Your task to perform on an android device: find photos in the google photos app Image 0: 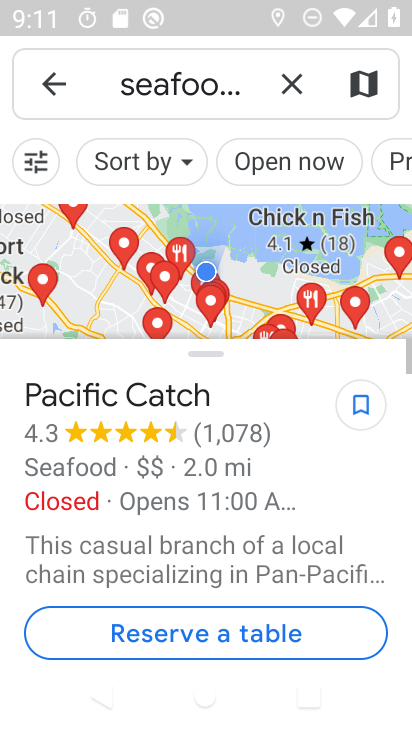
Step 0: press back button
Your task to perform on an android device: find photos in the google photos app Image 1: 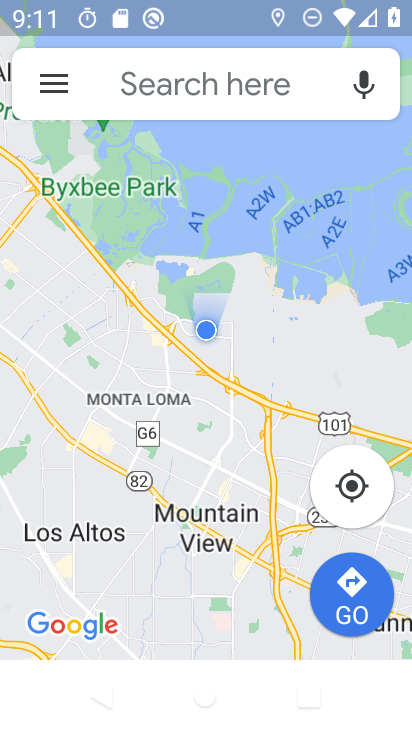
Step 1: press back button
Your task to perform on an android device: find photos in the google photos app Image 2: 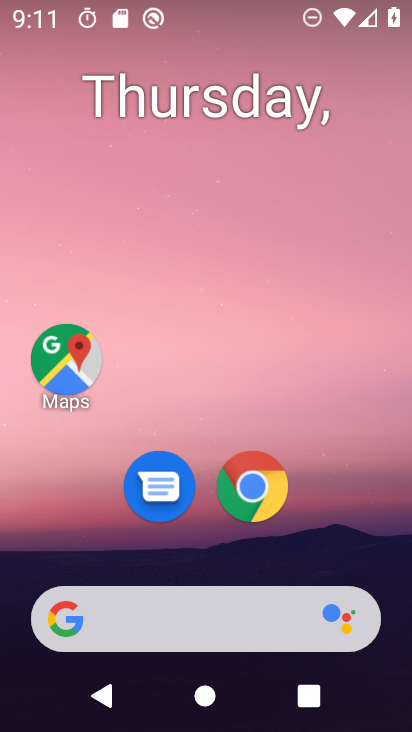
Step 2: drag from (203, 560) to (273, 51)
Your task to perform on an android device: find photos in the google photos app Image 3: 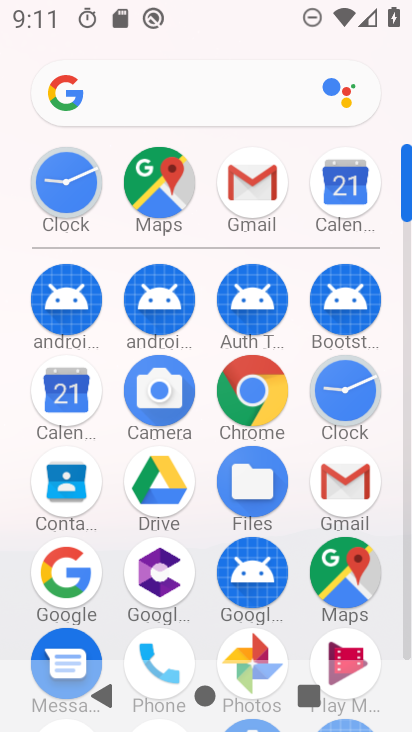
Step 3: click (265, 640)
Your task to perform on an android device: find photos in the google photos app Image 4: 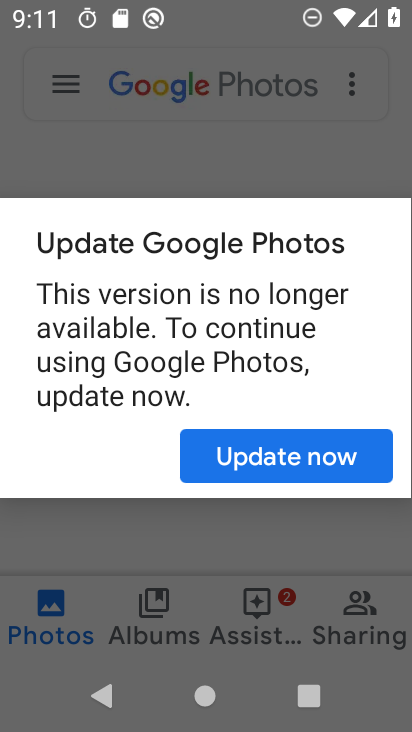
Step 4: click (245, 462)
Your task to perform on an android device: find photos in the google photos app Image 5: 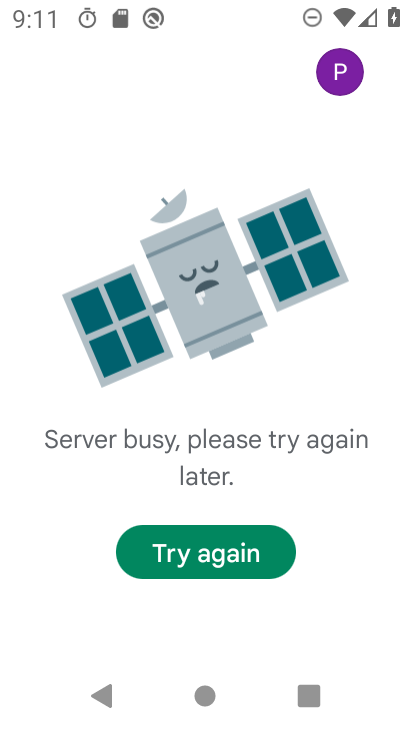
Step 5: press back button
Your task to perform on an android device: find photos in the google photos app Image 6: 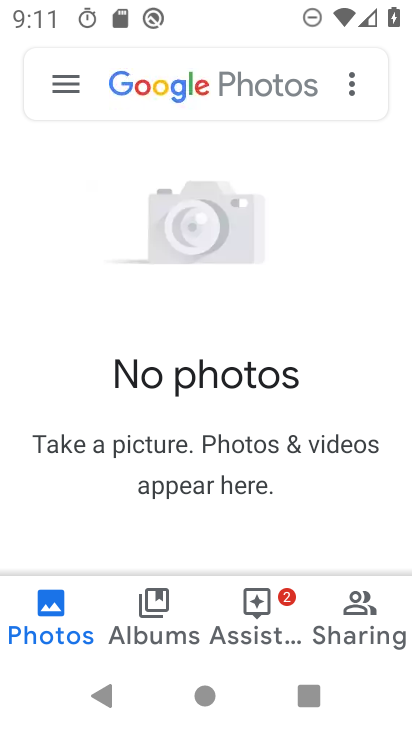
Step 6: click (44, 622)
Your task to perform on an android device: find photos in the google photos app Image 7: 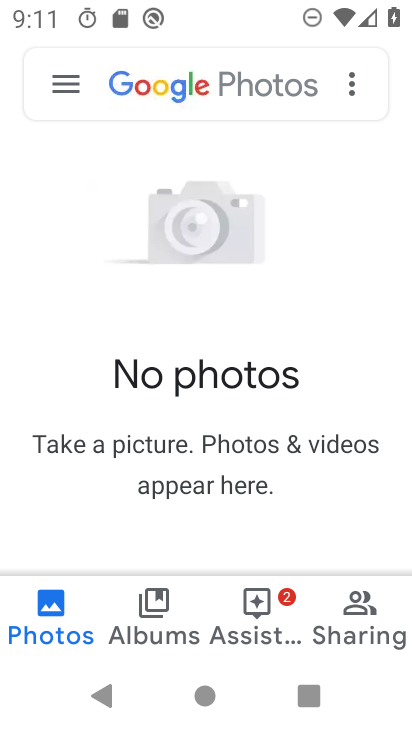
Step 7: task complete